Your task to perform on an android device: open the mobile data screen to see how much data has been used Image 0: 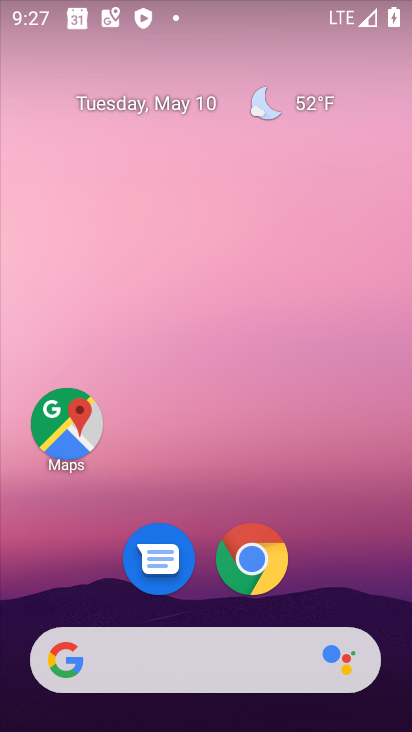
Step 0: drag from (295, 494) to (203, 2)
Your task to perform on an android device: open the mobile data screen to see how much data has been used Image 1: 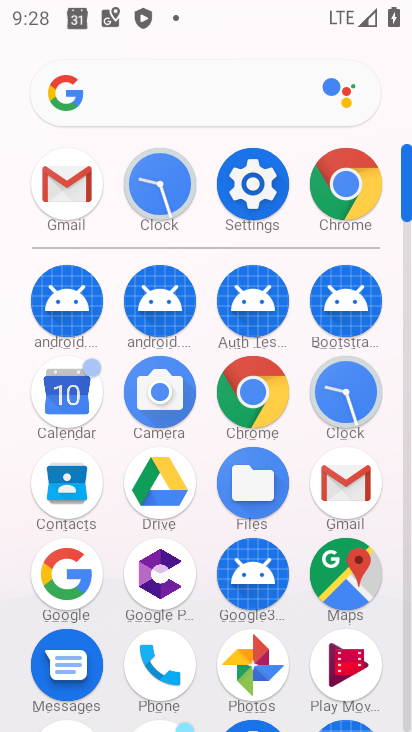
Step 1: drag from (9, 581) to (8, 260)
Your task to perform on an android device: open the mobile data screen to see how much data has been used Image 2: 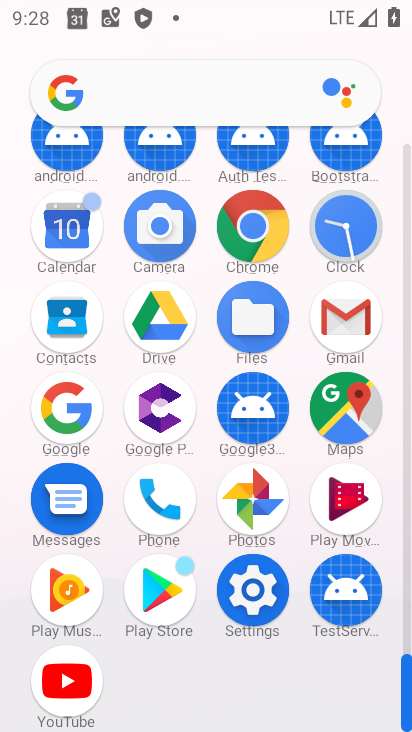
Step 2: click (249, 591)
Your task to perform on an android device: open the mobile data screen to see how much data has been used Image 3: 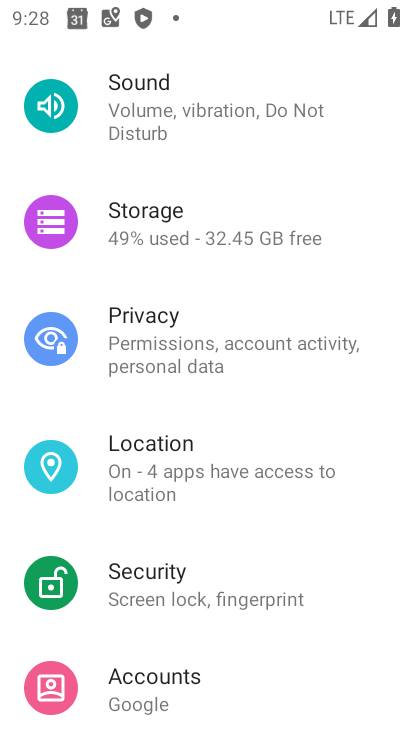
Step 3: drag from (255, 125) to (272, 596)
Your task to perform on an android device: open the mobile data screen to see how much data has been used Image 4: 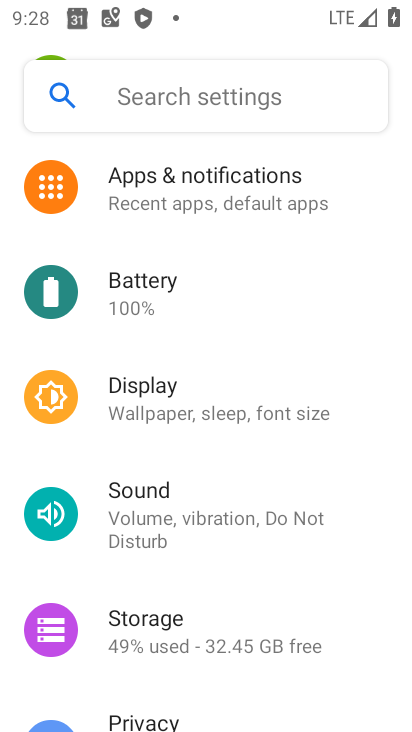
Step 4: drag from (275, 285) to (261, 603)
Your task to perform on an android device: open the mobile data screen to see how much data has been used Image 5: 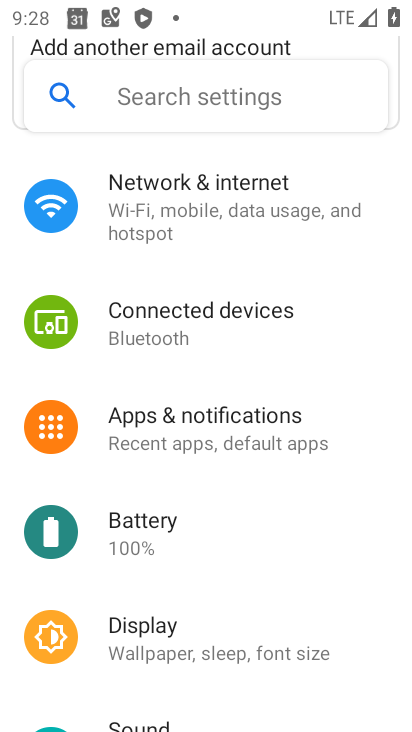
Step 5: click (230, 190)
Your task to perform on an android device: open the mobile data screen to see how much data has been used Image 6: 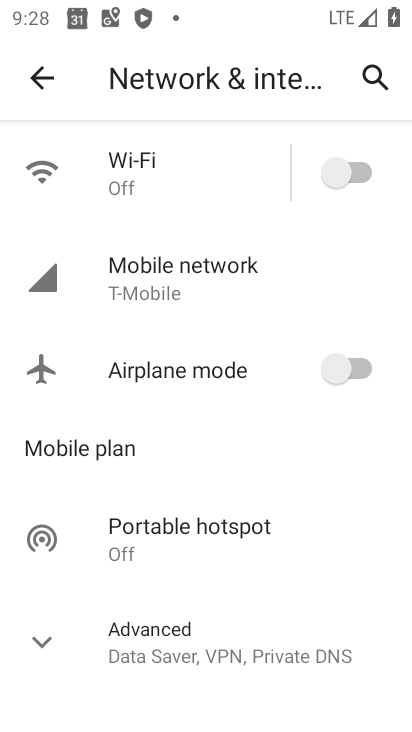
Step 6: click (198, 269)
Your task to perform on an android device: open the mobile data screen to see how much data has been used Image 7: 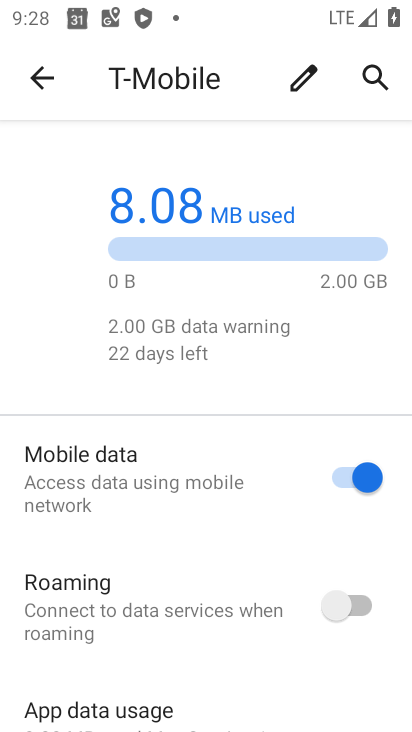
Step 7: task complete